Your task to perform on an android device: turn on airplane mode Image 0: 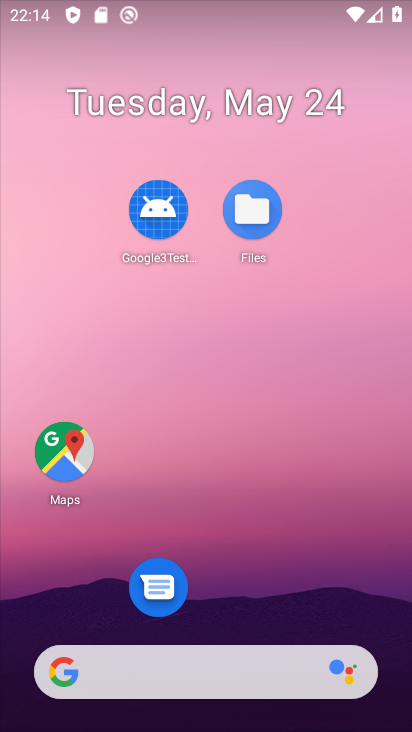
Step 0: drag from (232, 611) to (165, 89)
Your task to perform on an android device: turn on airplane mode Image 1: 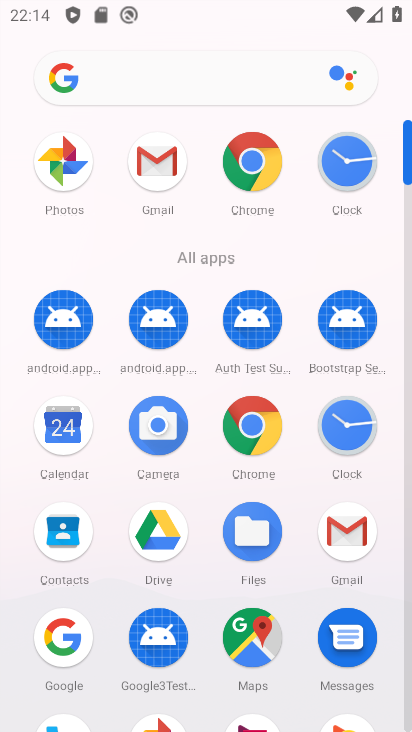
Step 1: drag from (104, 594) to (25, 96)
Your task to perform on an android device: turn on airplane mode Image 2: 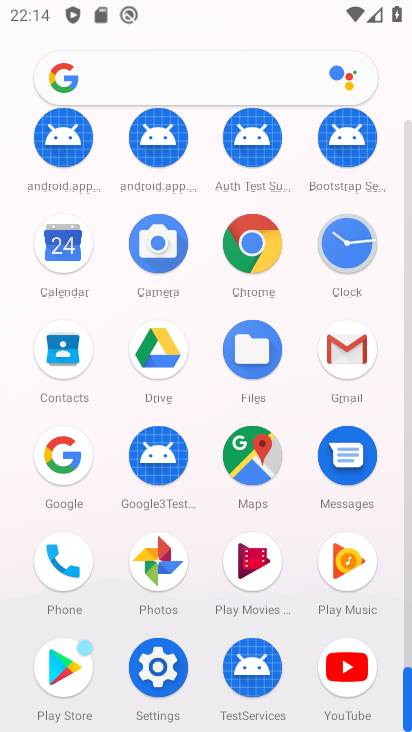
Step 2: click (167, 660)
Your task to perform on an android device: turn on airplane mode Image 3: 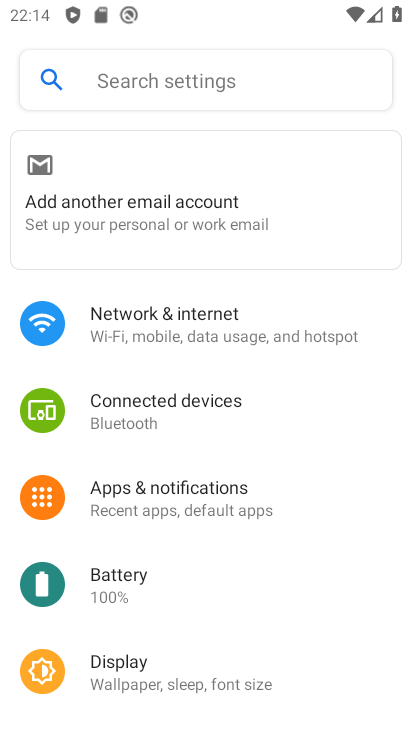
Step 3: click (172, 313)
Your task to perform on an android device: turn on airplane mode Image 4: 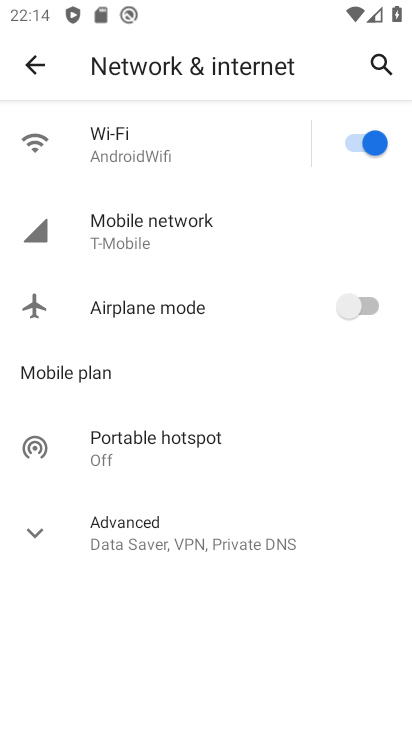
Step 4: click (362, 301)
Your task to perform on an android device: turn on airplane mode Image 5: 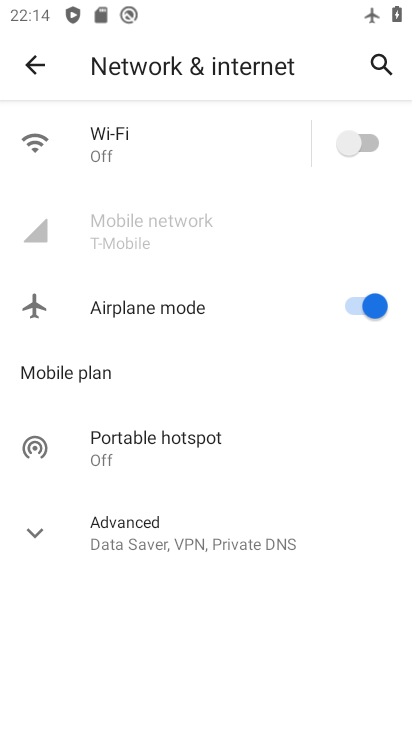
Step 5: task complete